Your task to perform on an android device: check android version Image 0: 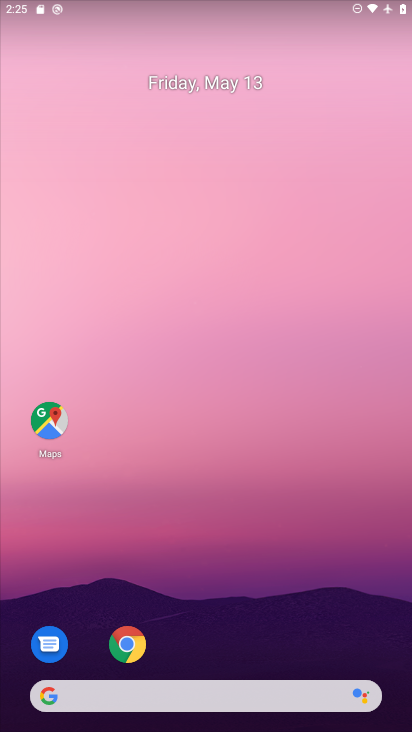
Step 0: drag from (322, 590) to (234, 111)
Your task to perform on an android device: check android version Image 1: 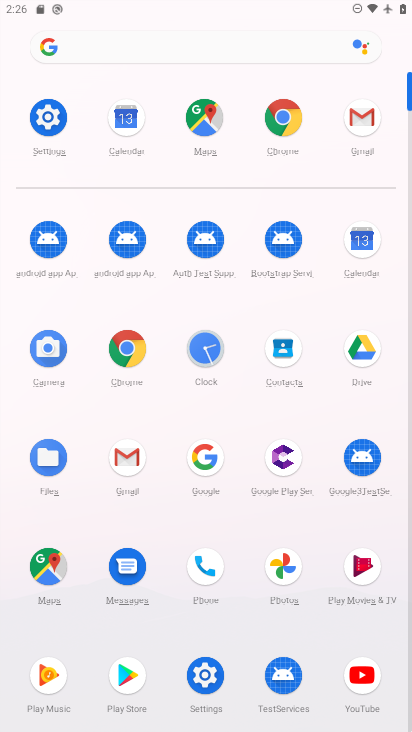
Step 1: click (222, 681)
Your task to perform on an android device: check android version Image 2: 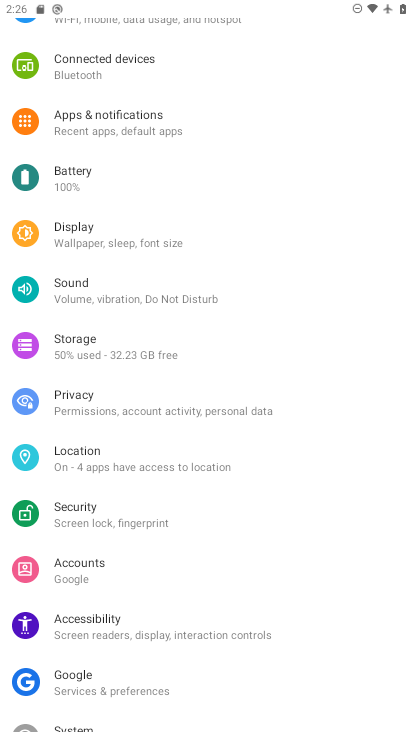
Step 2: drag from (99, 686) to (96, 227)
Your task to perform on an android device: check android version Image 3: 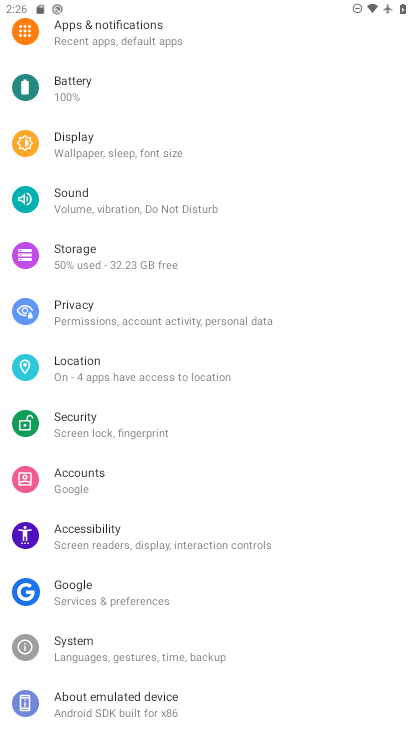
Step 3: click (131, 693)
Your task to perform on an android device: check android version Image 4: 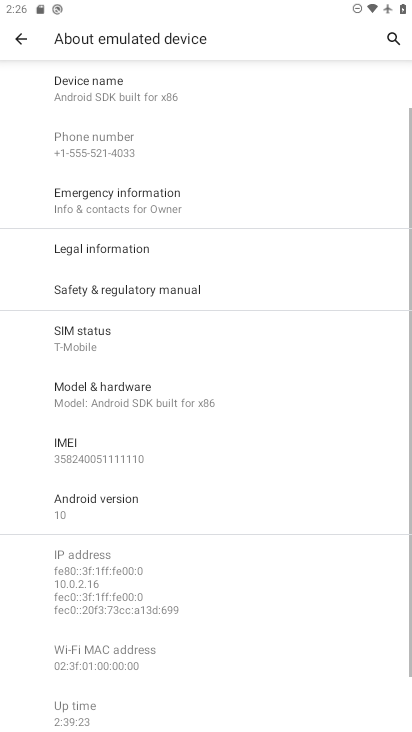
Step 4: click (133, 507)
Your task to perform on an android device: check android version Image 5: 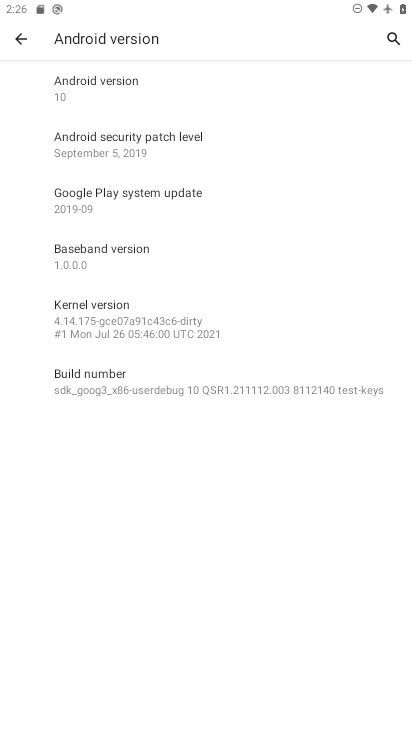
Step 5: task complete